Your task to perform on an android device: Search for Italian restaurants on Maps Image 0: 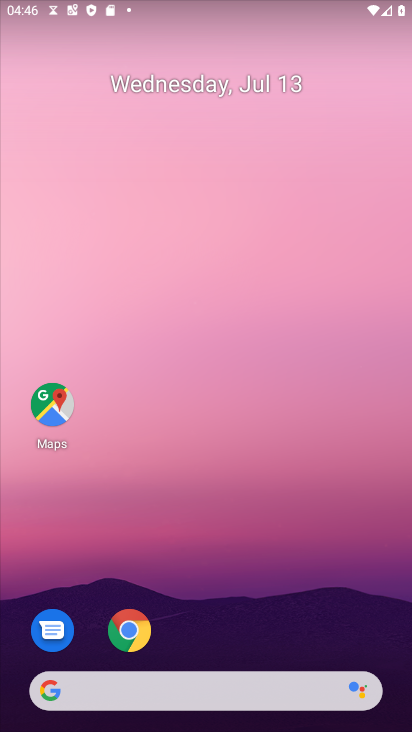
Step 0: drag from (243, 667) to (246, 13)
Your task to perform on an android device: Search for Italian restaurants on Maps Image 1: 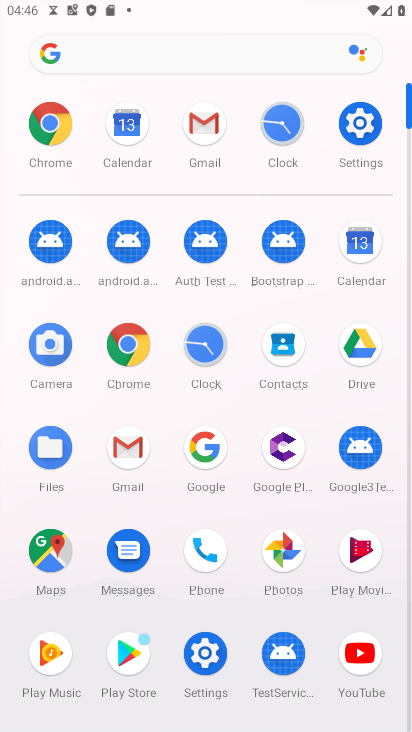
Step 1: click (54, 551)
Your task to perform on an android device: Search for Italian restaurants on Maps Image 2: 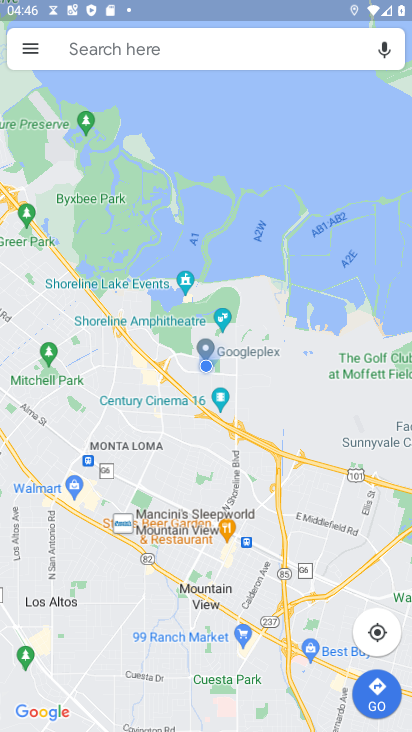
Step 2: click (276, 43)
Your task to perform on an android device: Search for Italian restaurants on Maps Image 3: 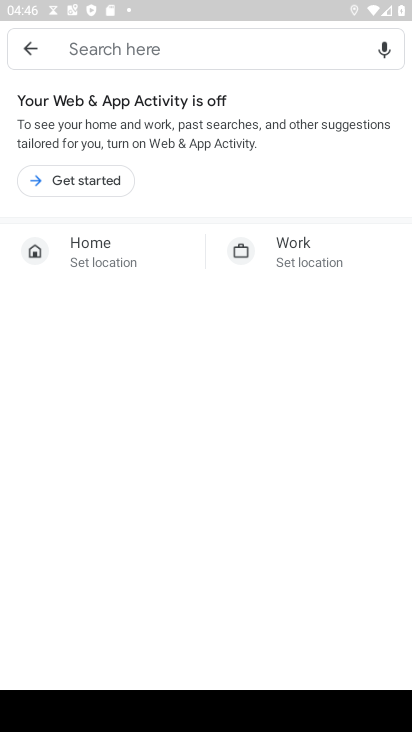
Step 3: type "italian restaurant"
Your task to perform on an android device: Search for Italian restaurants on Maps Image 4: 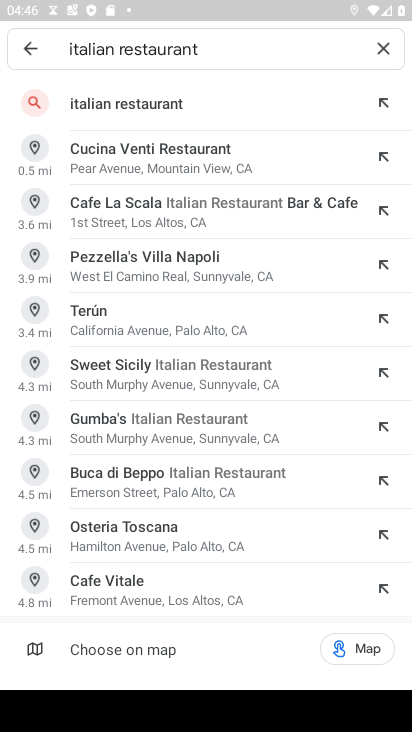
Step 4: click (178, 101)
Your task to perform on an android device: Search for Italian restaurants on Maps Image 5: 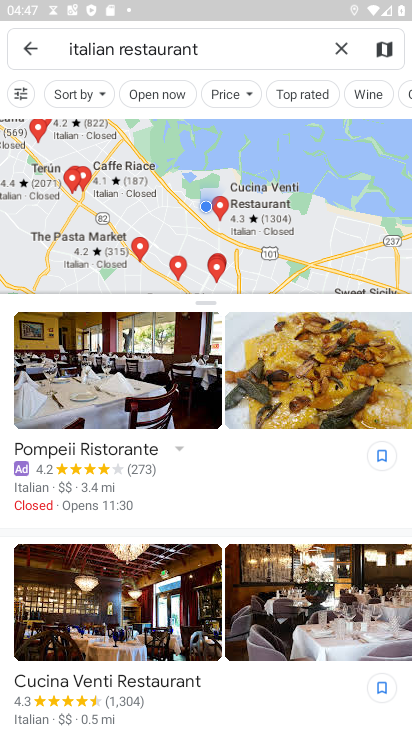
Step 5: task complete